Your task to perform on an android device: Open the calendar and show me this week's events? Image 0: 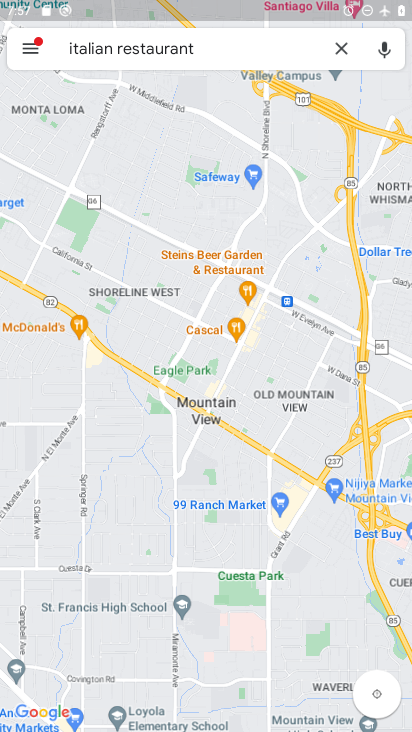
Step 0: press home button
Your task to perform on an android device: Open the calendar and show me this week's events? Image 1: 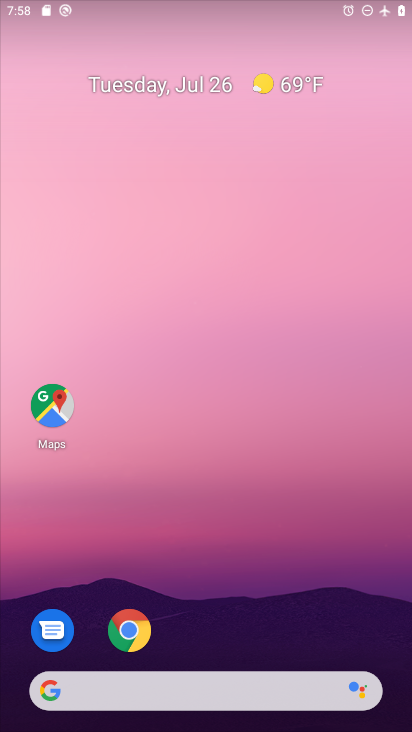
Step 1: drag from (295, 578) to (281, 70)
Your task to perform on an android device: Open the calendar and show me this week's events? Image 2: 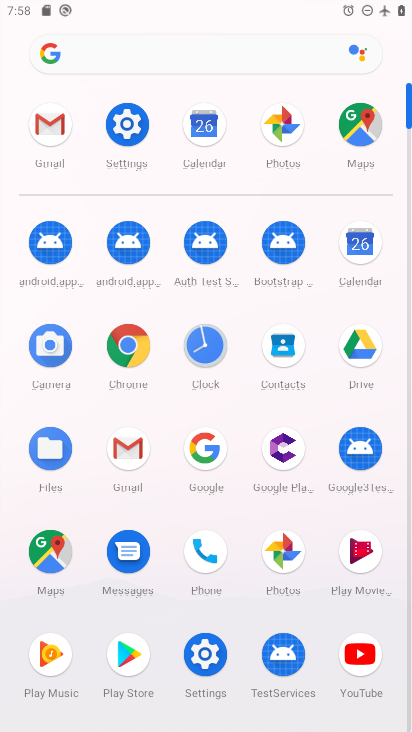
Step 2: click (354, 261)
Your task to perform on an android device: Open the calendar and show me this week's events? Image 3: 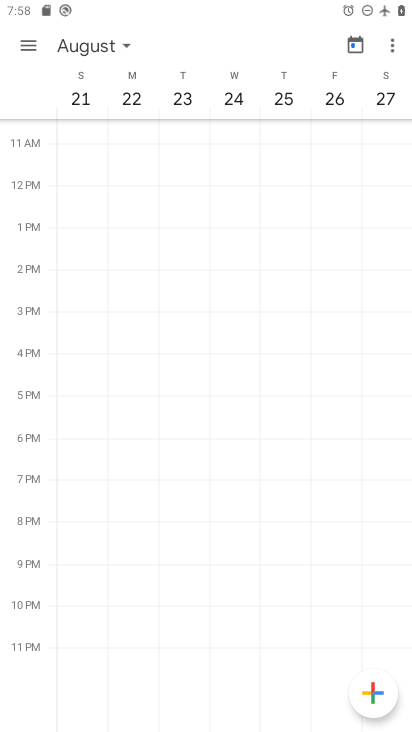
Step 3: click (105, 46)
Your task to perform on an android device: Open the calendar and show me this week's events? Image 4: 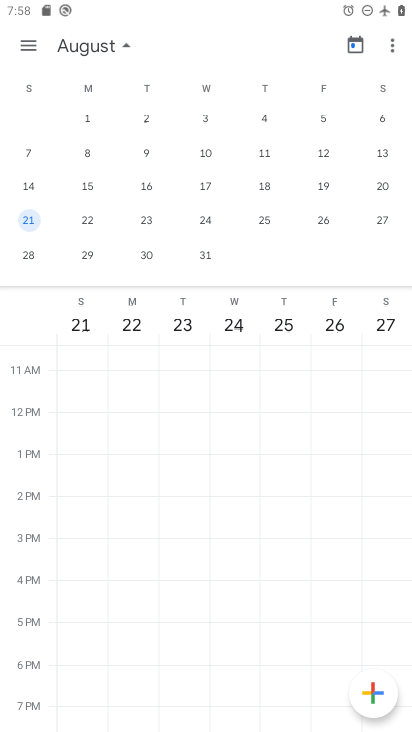
Step 4: drag from (77, 214) to (401, 202)
Your task to perform on an android device: Open the calendar and show me this week's events? Image 5: 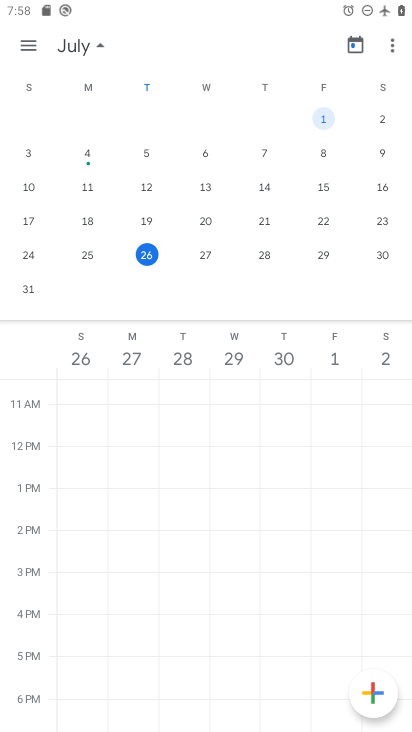
Step 5: click (148, 258)
Your task to perform on an android device: Open the calendar and show me this week's events? Image 6: 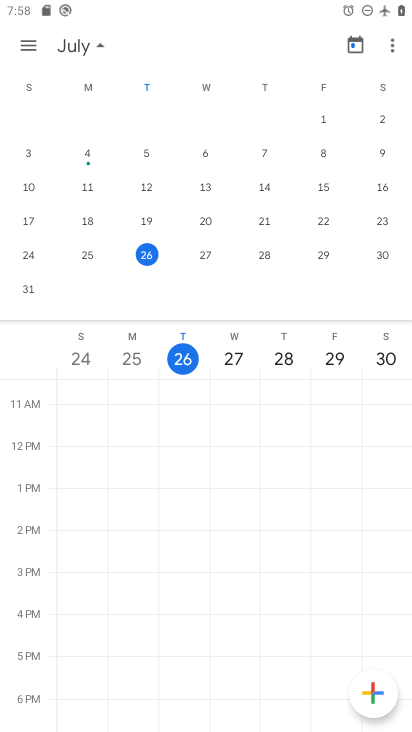
Step 6: click (92, 40)
Your task to perform on an android device: Open the calendar and show me this week's events? Image 7: 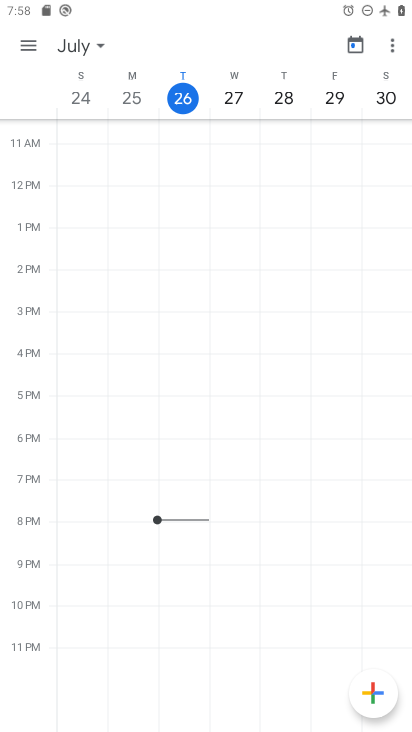
Step 7: task complete